Your task to perform on an android device: toggle pop-ups in chrome Image 0: 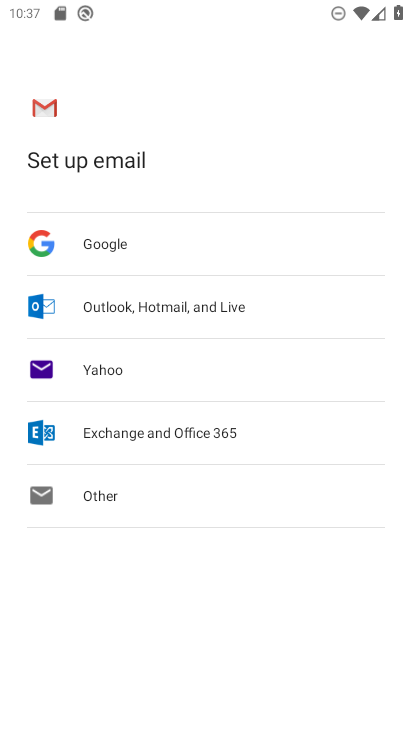
Step 0: press back button
Your task to perform on an android device: toggle pop-ups in chrome Image 1: 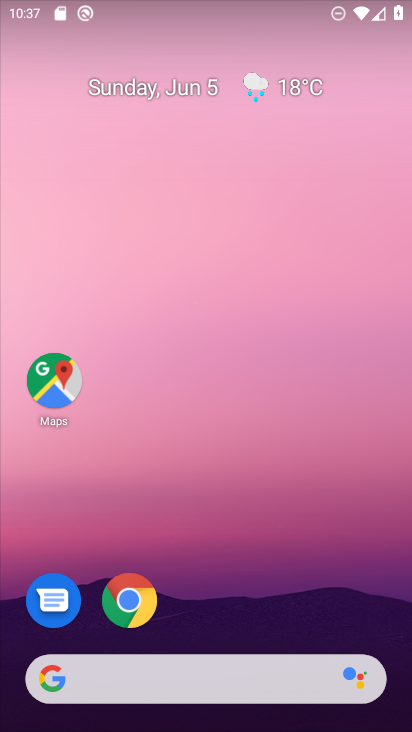
Step 1: click (135, 601)
Your task to perform on an android device: toggle pop-ups in chrome Image 2: 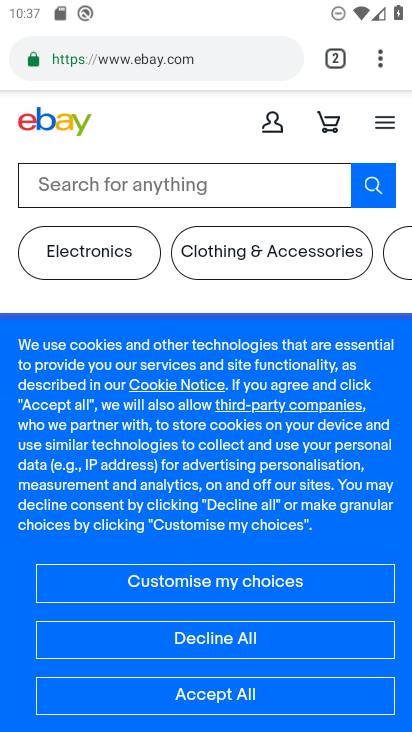
Step 2: drag from (387, 51) to (166, 631)
Your task to perform on an android device: toggle pop-ups in chrome Image 3: 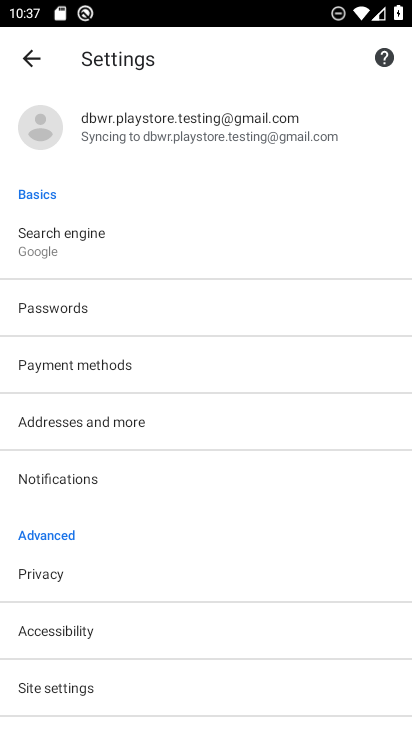
Step 3: click (85, 689)
Your task to perform on an android device: toggle pop-ups in chrome Image 4: 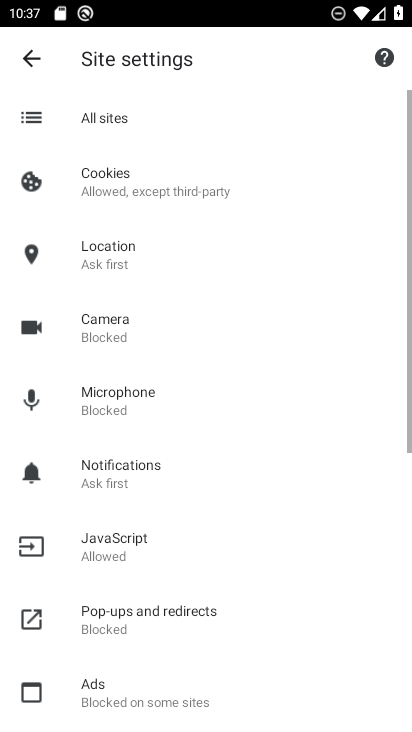
Step 4: drag from (146, 677) to (233, 379)
Your task to perform on an android device: toggle pop-ups in chrome Image 5: 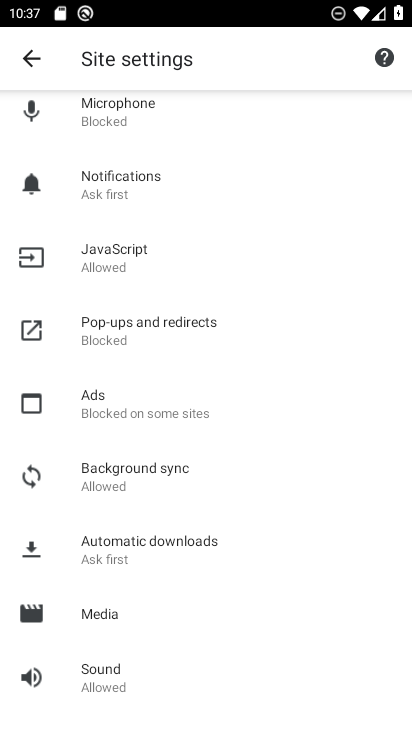
Step 5: click (151, 323)
Your task to perform on an android device: toggle pop-ups in chrome Image 6: 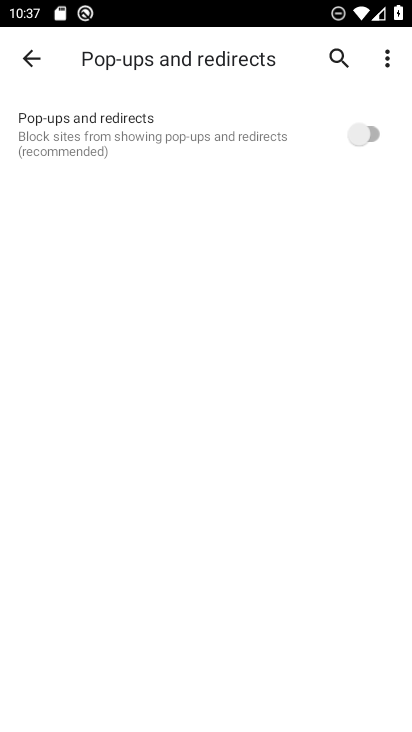
Step 6: click (360, 131)
Your task to perform on an android device: toggle pop-ups in chrome Image 7: 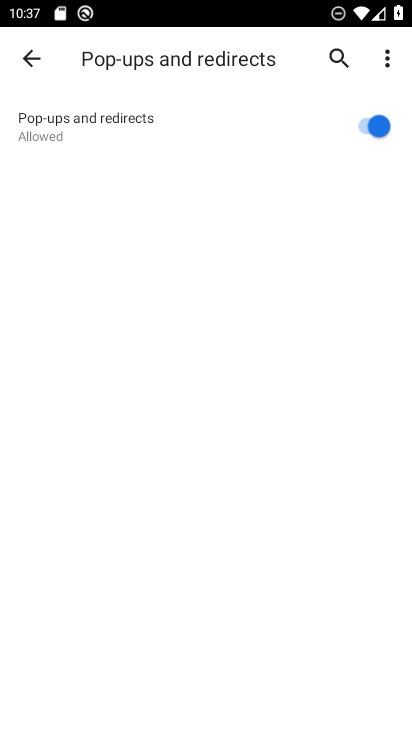
Step 7: task complete